Your task to perform on an android device: set the timer Image 0: 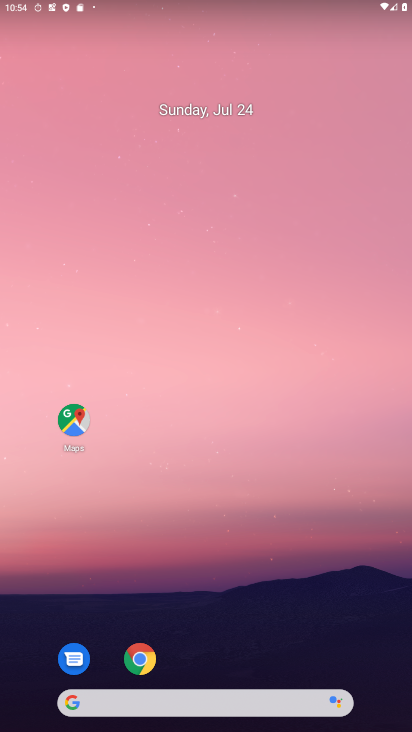
Step 0: drag from (223, 703) to (253, 184)
Your task to perform on an android device: set the timer Image 1: 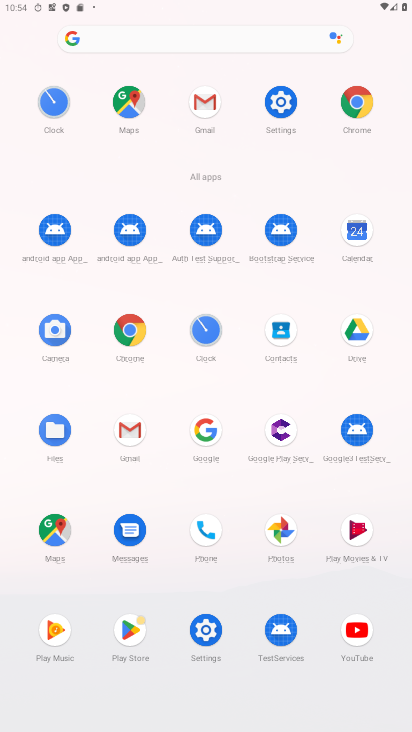
Step 1: click (207, 330)
Your task to perform on an android device: set the timer Image 2: 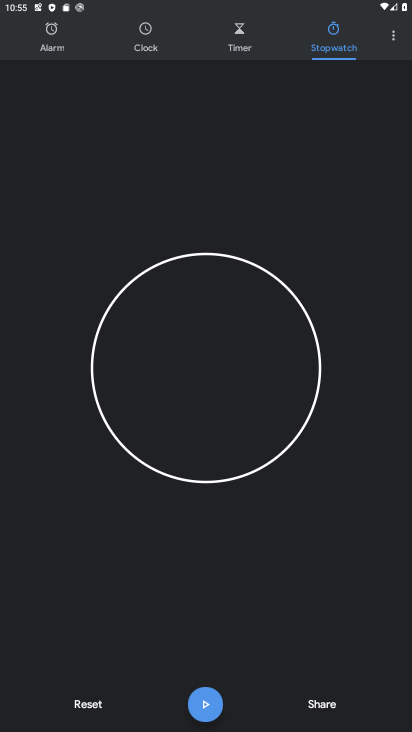
Step 2: click (239, 33)
Your task to perform on an android device: set the timer Image 3: 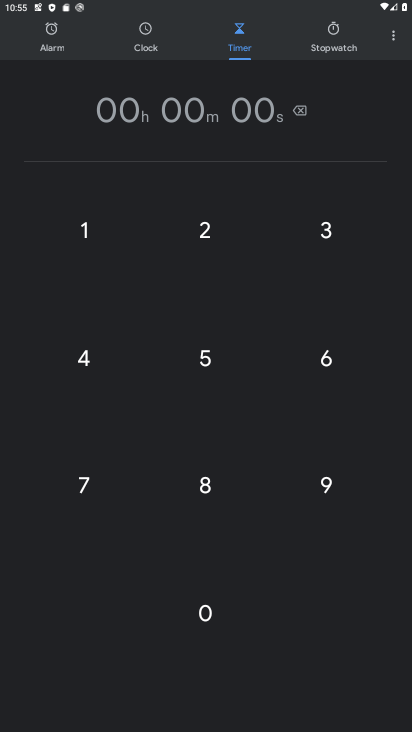
Step 3: type "135"
Your task to perform on an android device: set the timer Image 4: 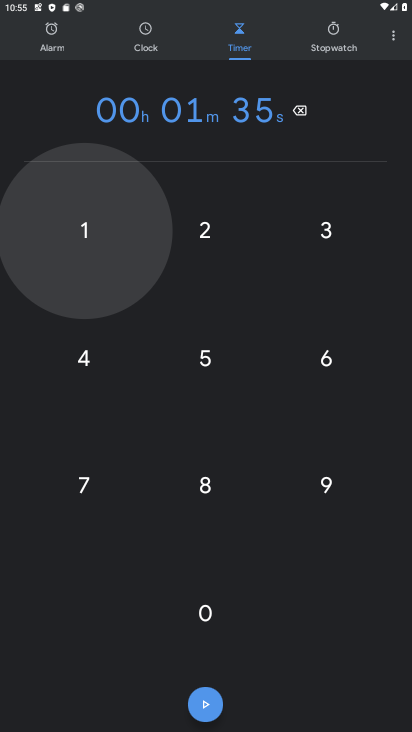
Step 4: click (205, 701)
Your task to perform on an android device: set the timer Image 5: 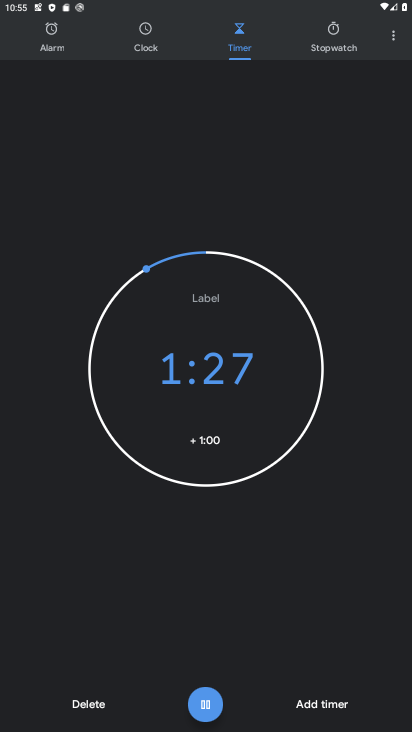
Step 5: click (205, 701)
Your task to perform on an android device: set the timer Image 6: 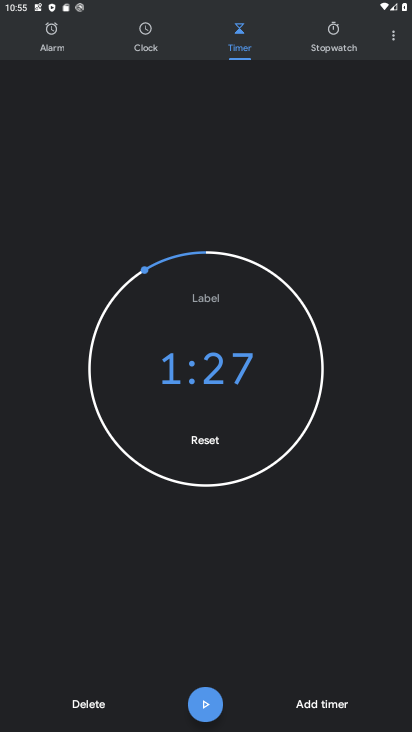
Step 6: task complete